Your task to perform on an android device: Open Android settings Image 0: 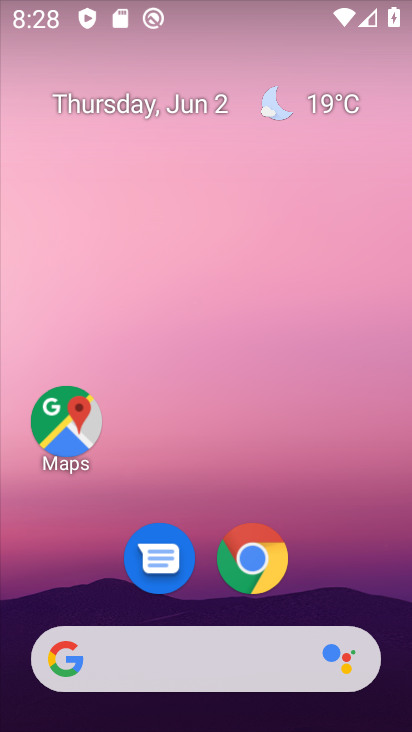
Step 0: drag from (341, 559) to (238, 154)
Your task to perform on an android device: Open Android settings Image 1: 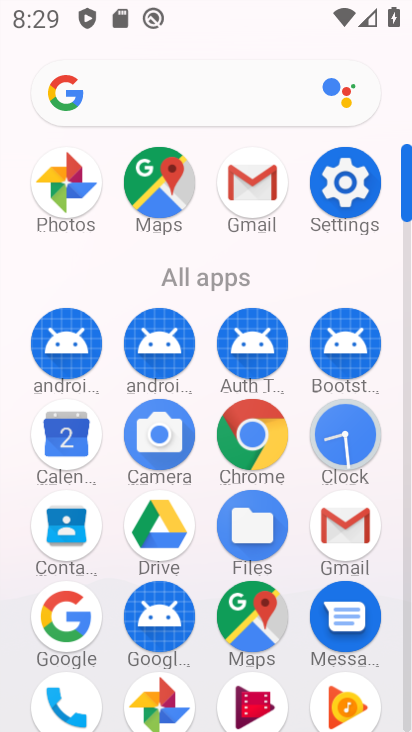
Step 1: click (358, 189)
Your task to perform on an android device: Open Android settings Image 2: 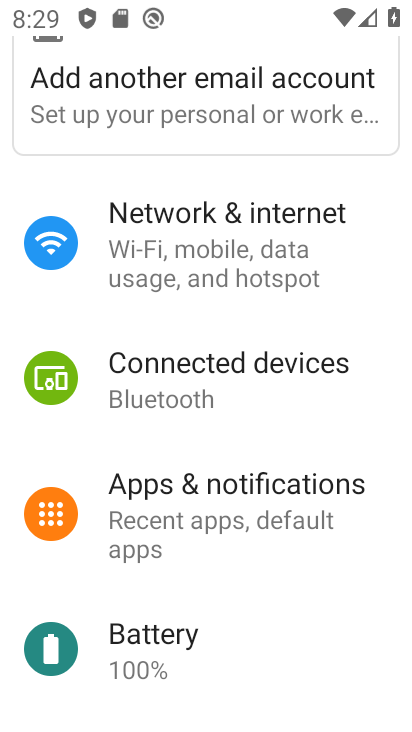
Step 2: task complete